Your task to perform on an android device: turn on location history Image 0: 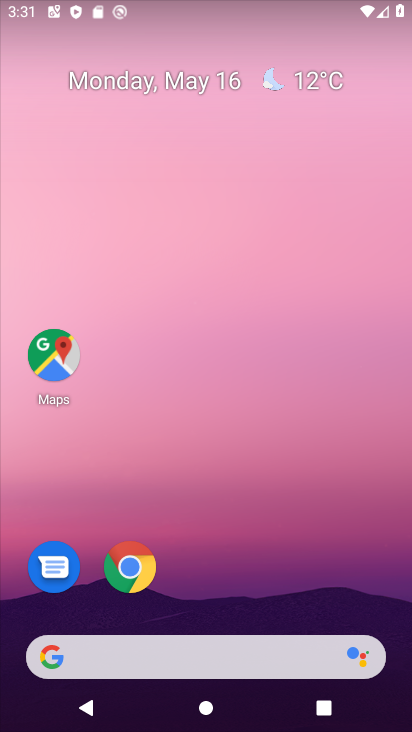
Step 0: drag from (258, 557) to (192, 1)
Your task to perform on an android device: turn on location history Image 1: 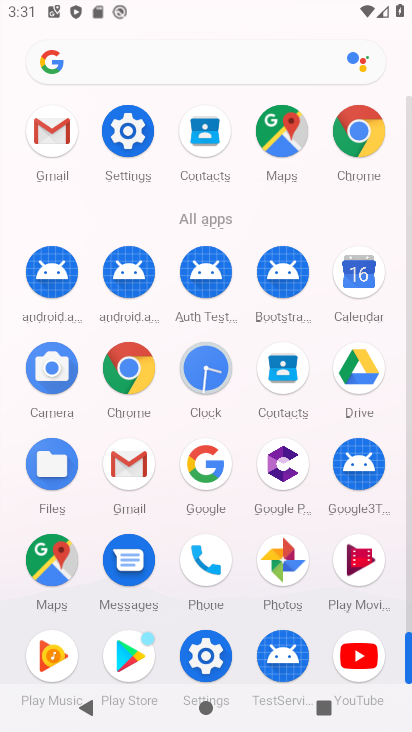
Step 1: drag from (4, 519) to (16, 223)
Your task to perform on an android device: turn on location history Image 2: 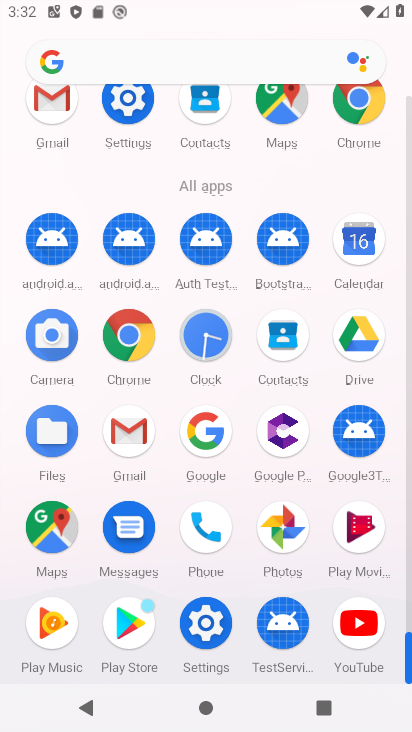
Step 2: click (201, 619)
Your task to perform on an android device: turn on location history Image 3: 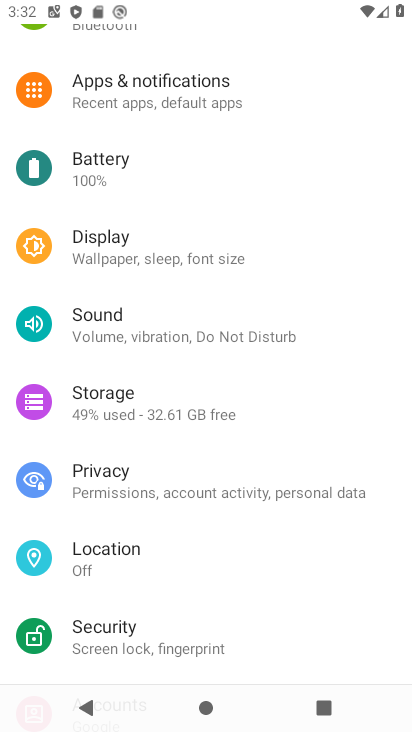
Step 3: drag from (240, 491) to (242, 118)
Your task to perform on an android device: turn on location history Image 4: 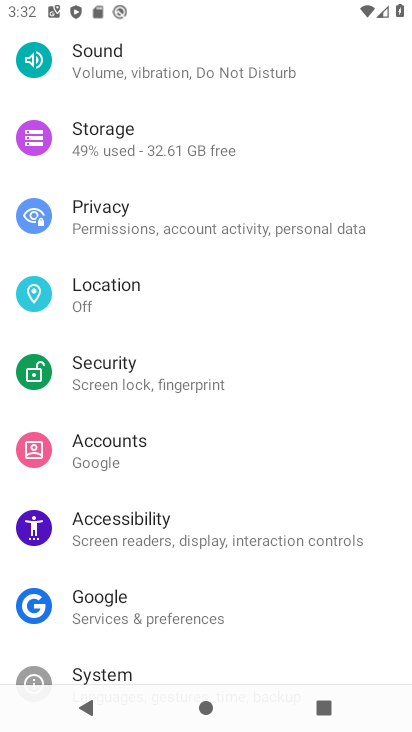
Step 4: click (109, 302)
Your task to perform on an android device: turn on location history Image 5: 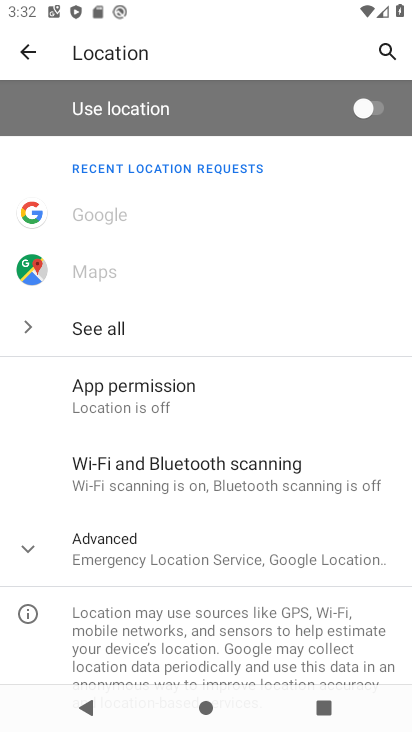
Step 5: click (29, 547)
Your task to perform on an android device: turn on location history Image 6: 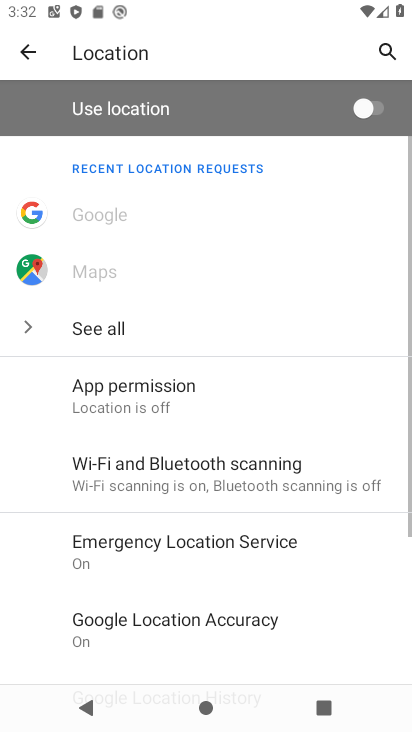
Step 6: drag from (254, 561) to (259, 242)
Your task to perform on an android device: turn on location history Image 7: 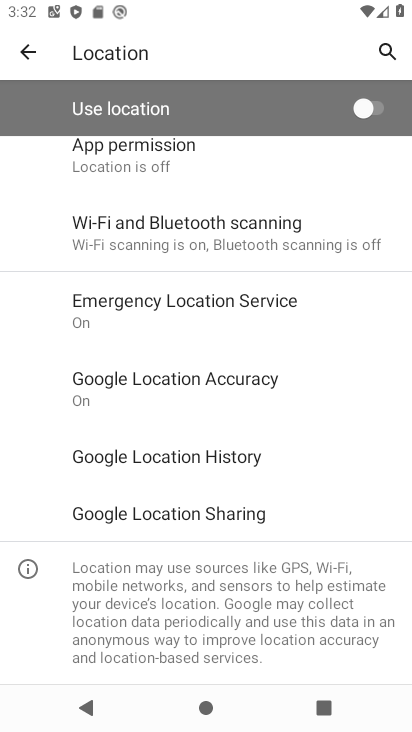
Step 7: click (218, 449)
Your task to perform on an android device: turn on location history Image 8: 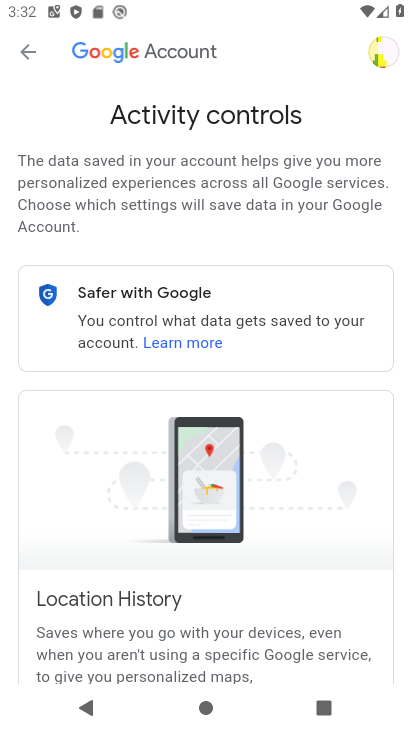
Step 8: task complete